Your task to perform on an android device: turn off translation in the chrome app Image 0: 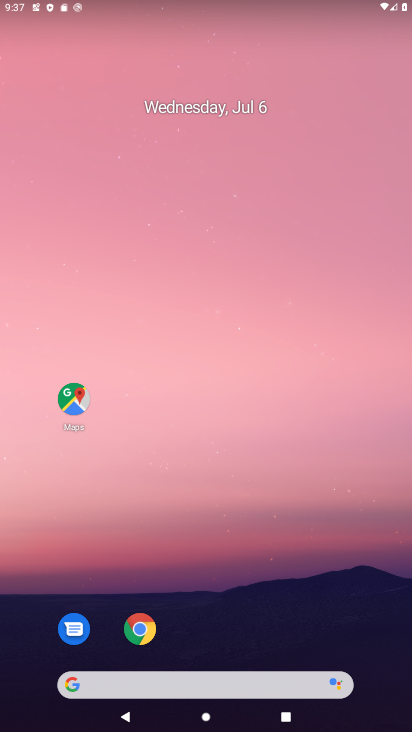
Step 0: drag from (212, 637) to (230, 157)
Your task to perform on an android device: turn off translation in the chrome app Image 1: 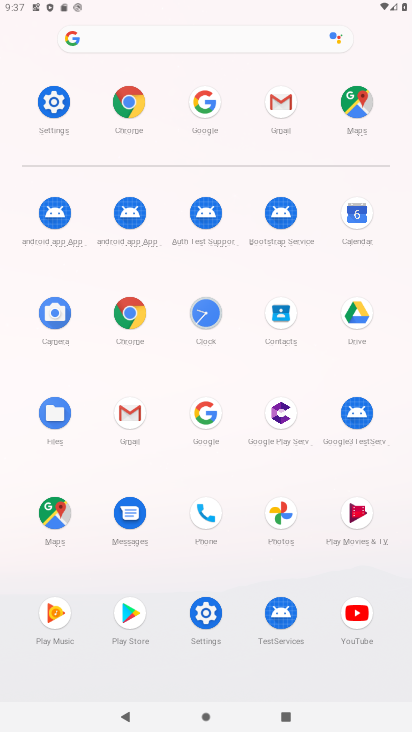
Step 1: click (126, 107)
Your task to perform on an android device: turn off translation in the chrome app Image 2: 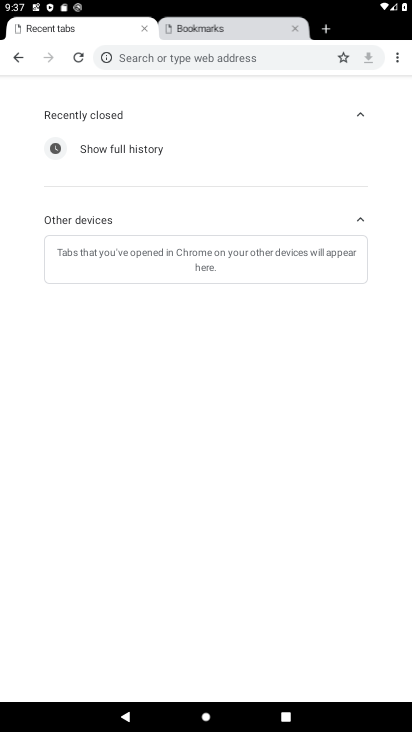
Step 2: press back button
Your task to perform on an android device: turn off translation in the chrome app Image 3: 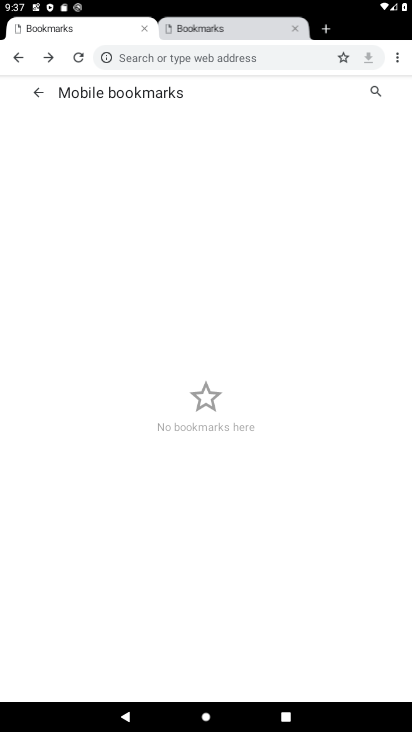
Step 3: click (393, 63)
Your task to perform on an android device: turn off translation in the chrome app Image 4: 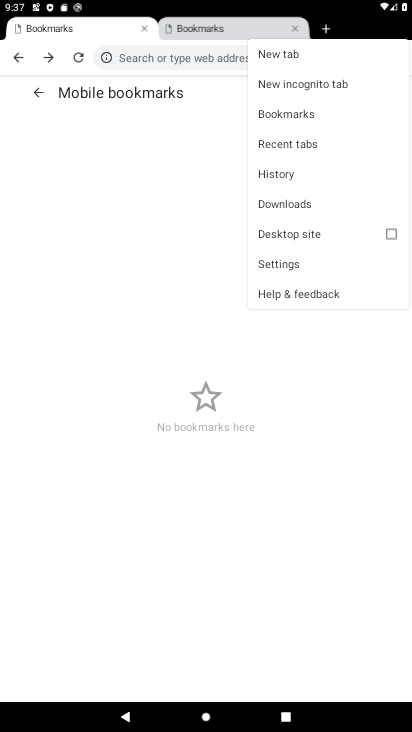
Step 4: click (277, 265)
Your task to perform on an android device: turn off translation in the chrome app Image 5: 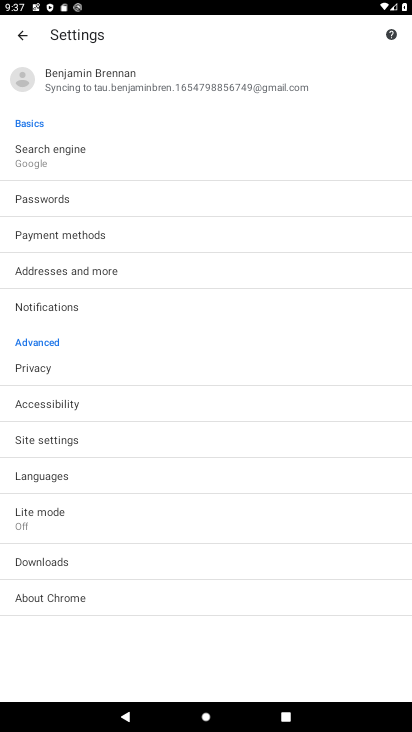
Step 5: click (69, 448)
Your task to perform on an android device: turn off translation in the chrome app Image 6: 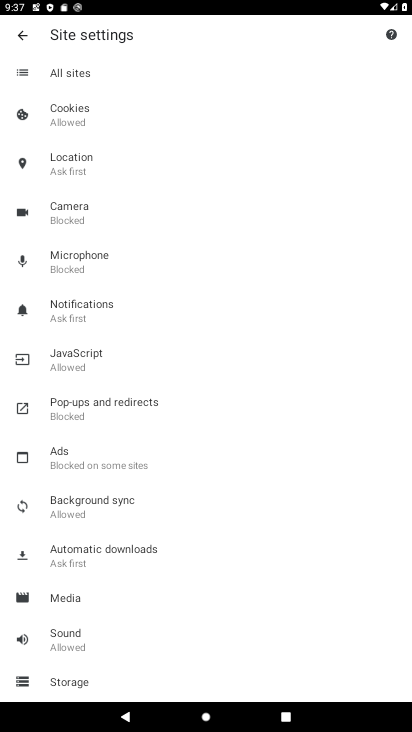
Step 6: press back button
Your task to perform on an android device: turn off translation in the chrome app Image 7: 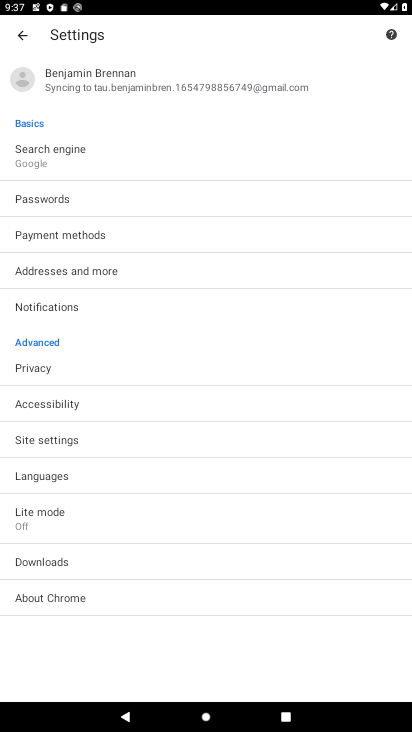
Step 7: click (66, 482)
Your task to perform on an android device: turn off translation in the chrome app Image 8: 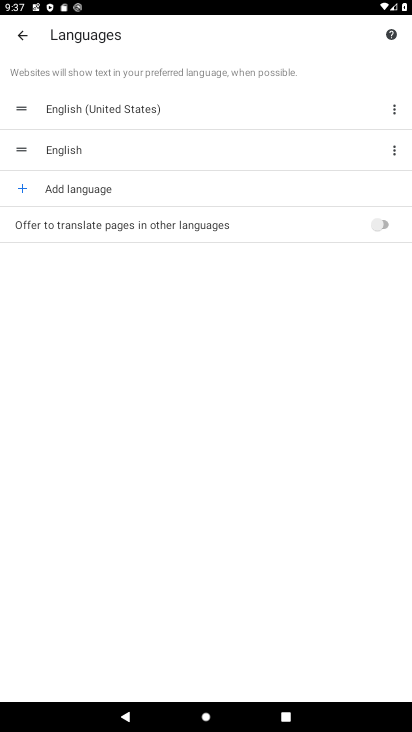
Step 8: task complete